Your task to perform on an android device: Search for pizza restaurants on Maps Image 0: 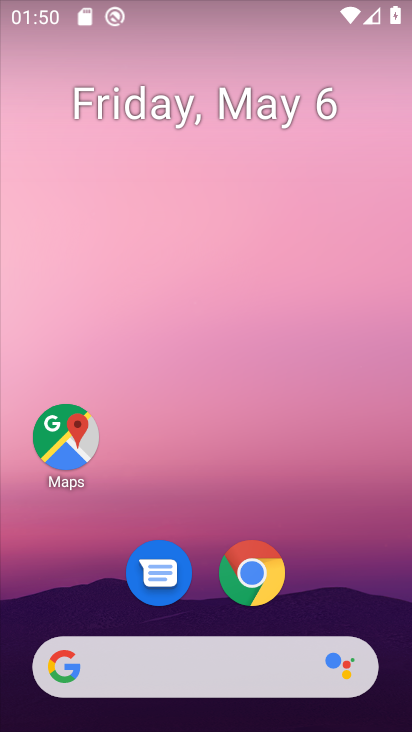
Step 0: drag from (363, 594) to (336, 262)
Your task to perform on an android device: Search for pizza restaurants on Maps Image 1: 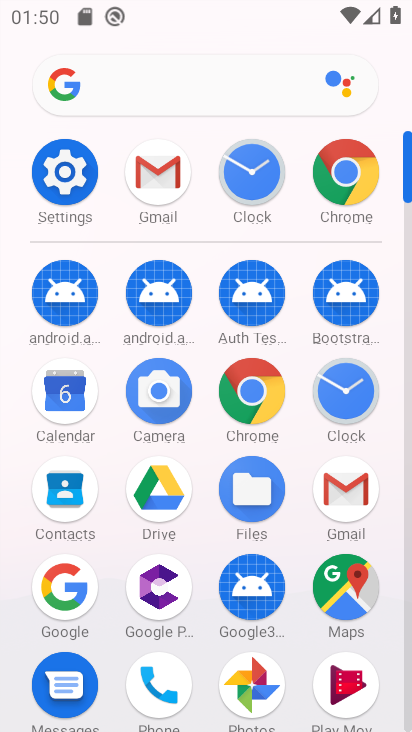
Step 1: click (256, 385)
Your task to perform on an android device: Search for pizza restaurants on Maps Image 2: 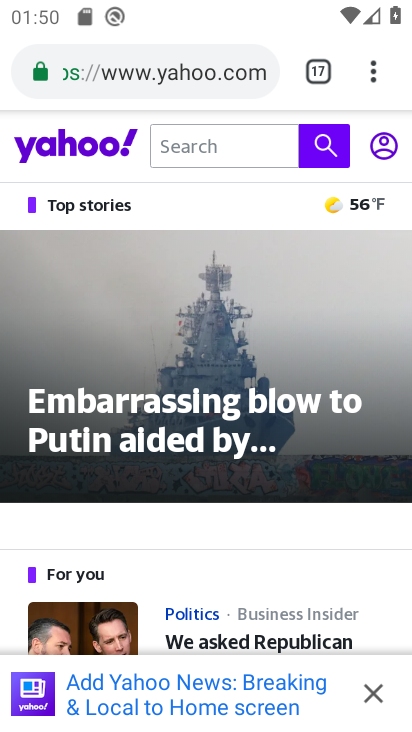
Step 2: press home button
Your task to perform on an android device: Search for pizza restaurants on Maps Image 3: 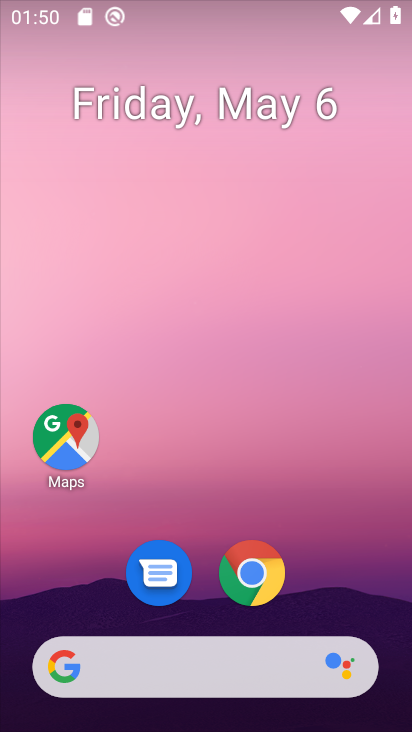
Step 3: drag from (287, 586) to (303, 331)
Your task to perform on an android device: Search for pizza restaurants on Maps Image 4: 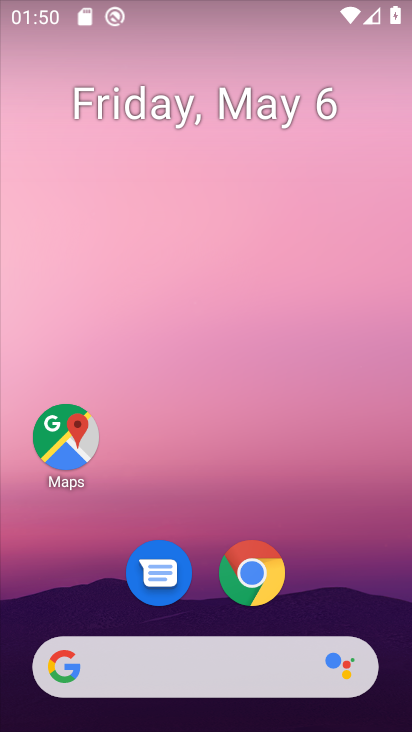
Step 4: drag from (333, 555) to (333, 291)
Your task to perform on an android device: Search for pizza restaurants on Maps Image 5: 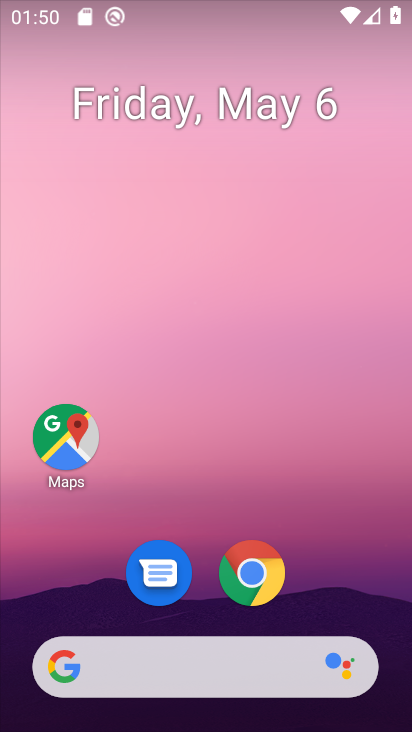
Step 5: drag from (331, 540) to (322, 257)
Your task to perform on an android device: Search for pizza restaurants on Maps Image 6: 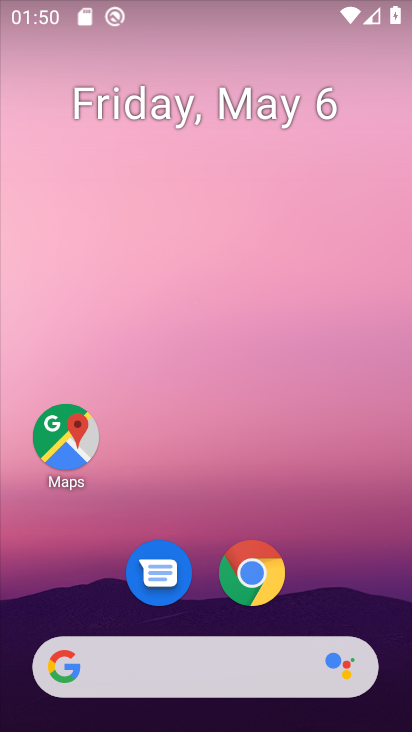
Step 6: drag from (333, 628) to (345, 99)
Your task to perform on an android device: Search for pizza restaurants on Maps Image 7: 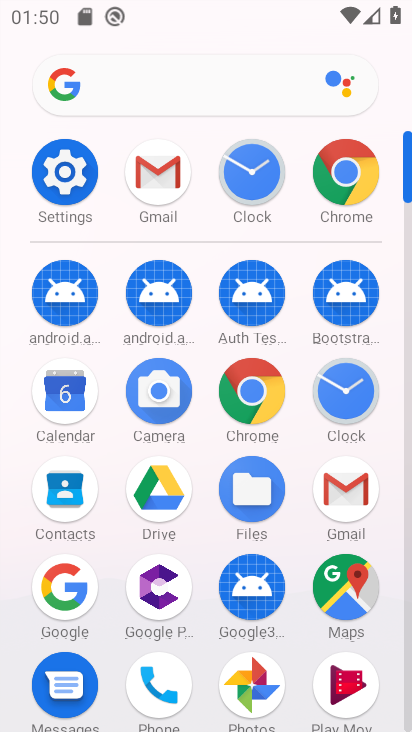
Step 7: click (358, 585)
Your task to perform on an android device: Search for pizza restaurants on Maps Image 8: 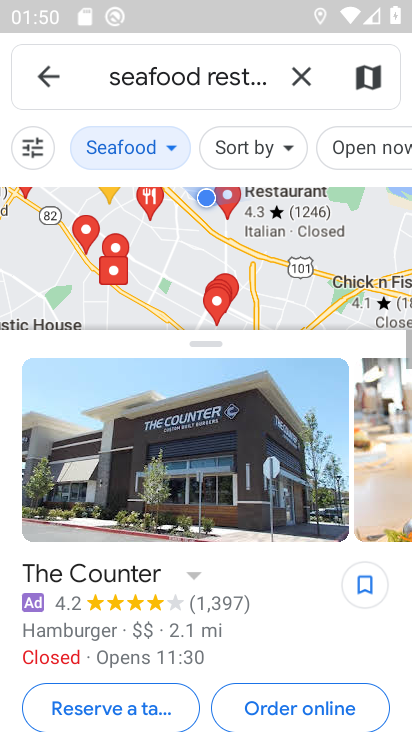
Step 8: click (286, 76)
Your task to perform on an android device: Search for pizza restaurants on Maps Image 9: 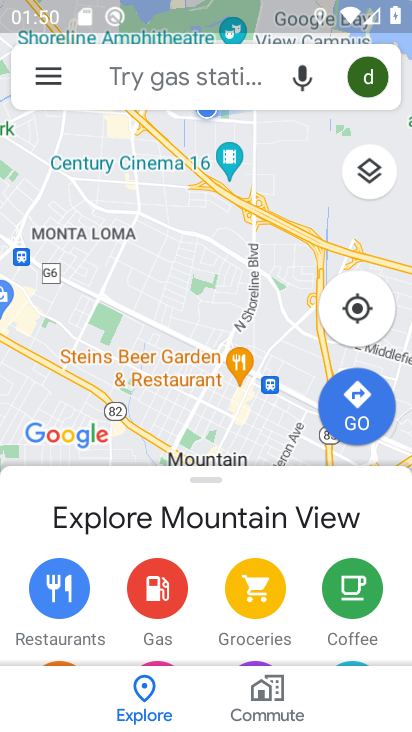
Step 9: click (162, 91)
Your task to perform on an android device: Search for pizza restaurants on Maps Image 10: 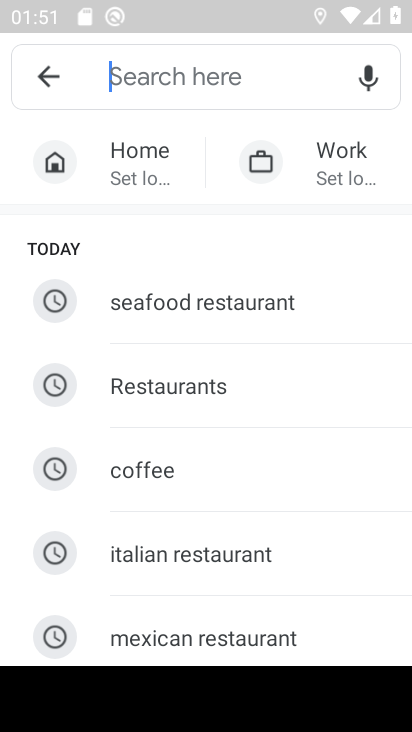
Step 10: type "pizza restaurants "
Your task to perform on an android device: Search for pizza restaurants on Maps Image 11: 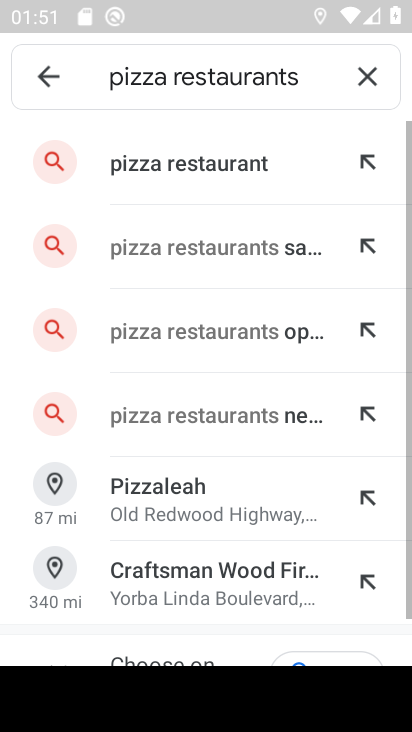
Step 11: click (160, 164)
Your task to perform on an android device: Search for pizza restaurants on Maps Image 12: 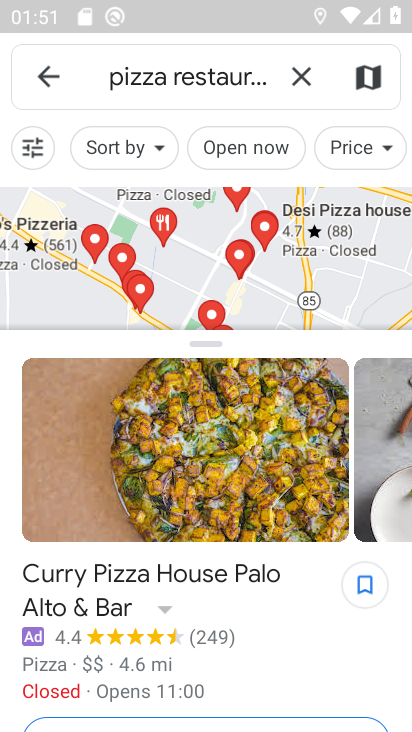
Step 12: task complete